Your task to perform on an android device: Open calendar and show me the third week of next month Image 0: 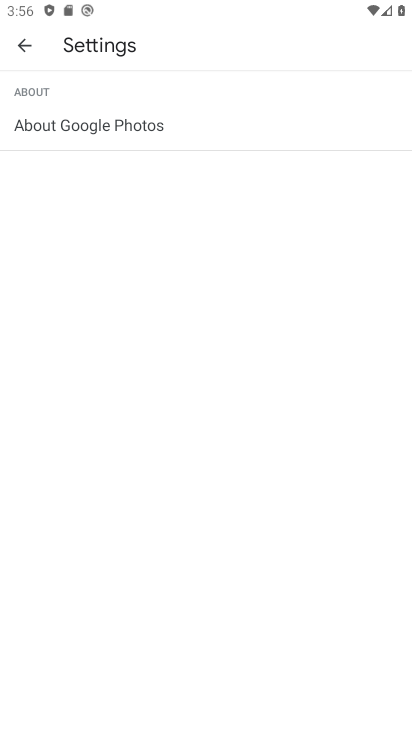
Step 0: press back button
Your task to perform on an android device: Open calendar and show me the third week of next month Image 1: 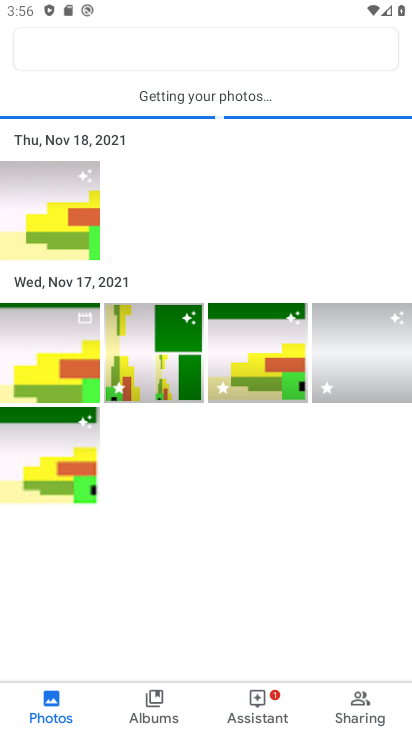
Step 1: click (28, 34)
Your task to perform on an android device: Open calendar and show me the third week of next month Image 2: 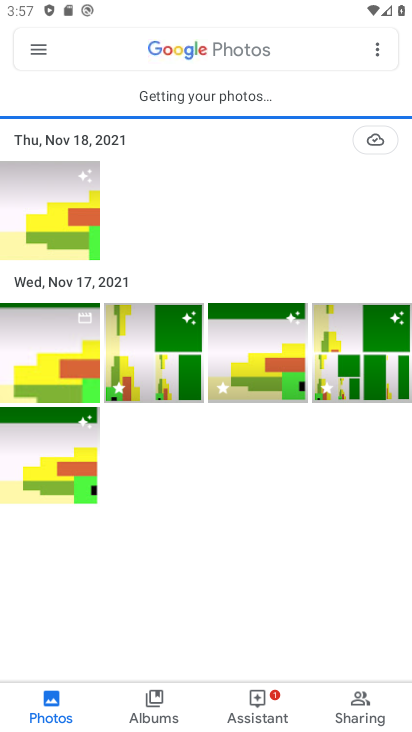
Step 2: press back button
Your task to perform on an android device: Open calendar and show me the third week of next month Image 3: 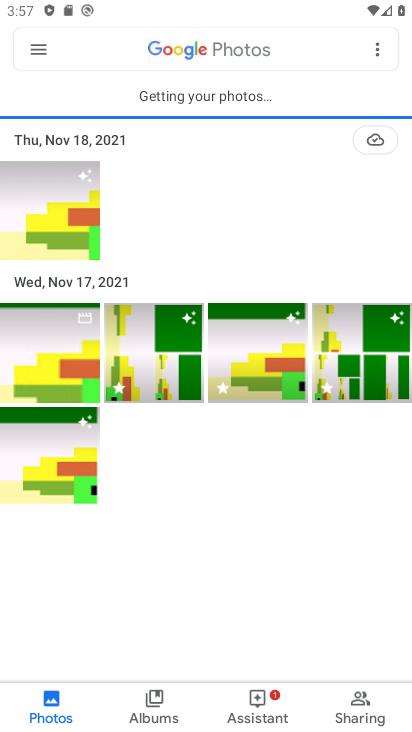
Step 3: press back button
Your task to perform on an android device: Open calendar and show me the third week of next month Image 4: 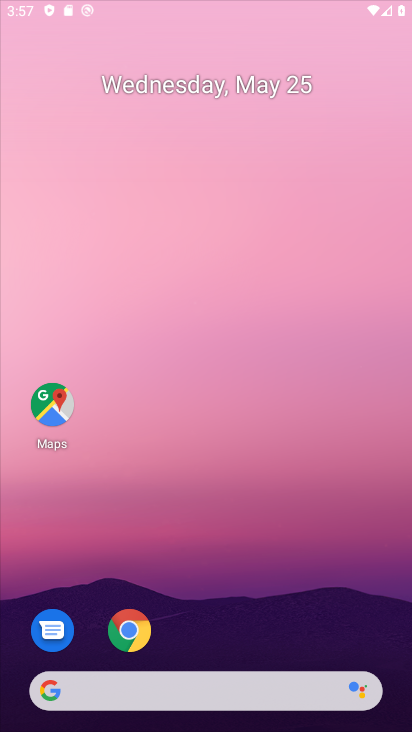
Step 4: press back button
Your task to perform on an android device: Open calendar and show me the third week of next month Image 5: 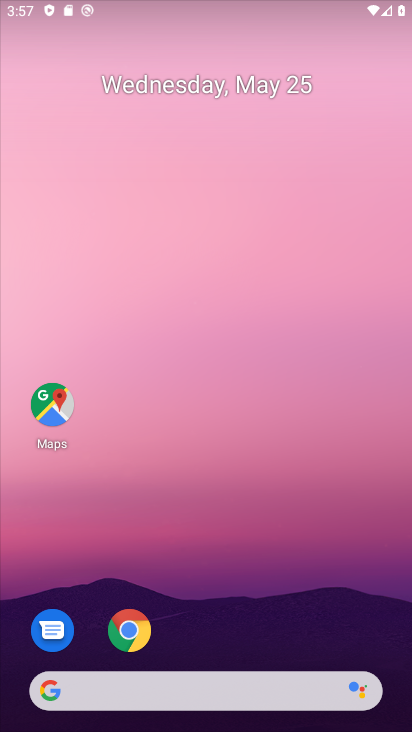
Step 5: press back button
Your task to perform on an android device: Open calendar and show me the third week of next month Image 6: 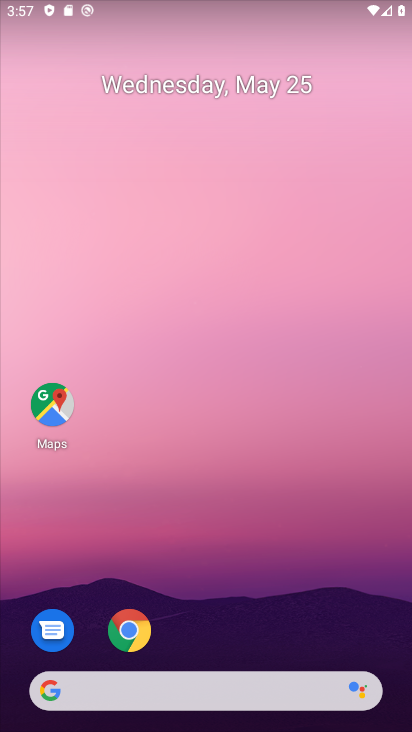
Step 6: drag from (158, 542) to (113, 146)
Your task to perform on an android device: Open calendar and show me the third week of next month Image 7: 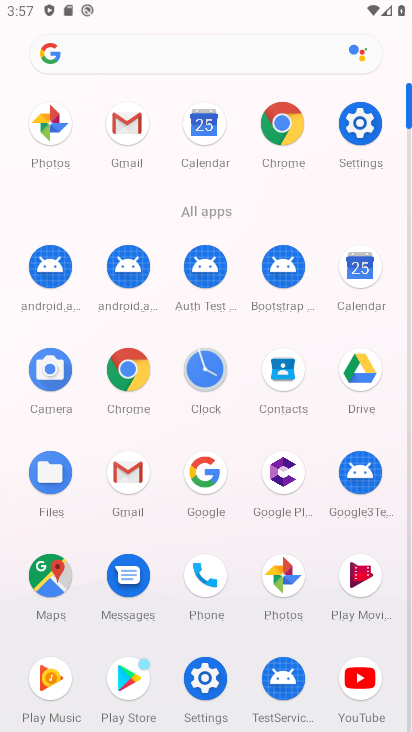
Step 7: click (363, 262)
Your task to perform on an android device: Open calendar and show me the third week of next month Image 8: 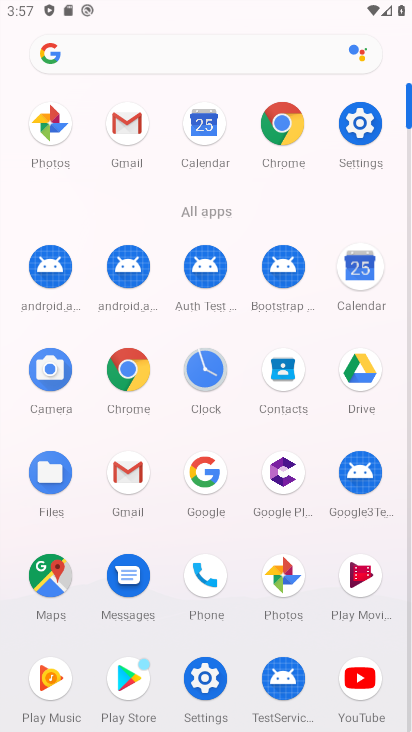
Step 8: click (364, 262)
Your task to perform on an android device: Open calendar and show me the third week of next month Image 9: 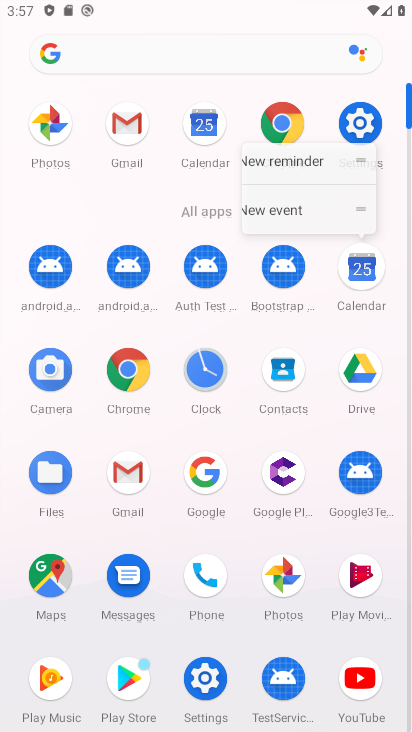
Step 9: click (364, 262)
Your task to perform on an android device: Open calendar and show me the third week of next month Image 10: 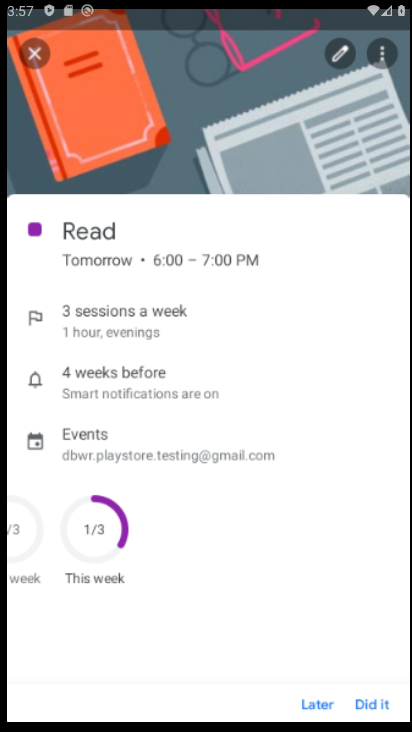
Step 10: click (367, 275)
Your task to perform on an android device: Open calendar and show me the third week of next month Image 11: 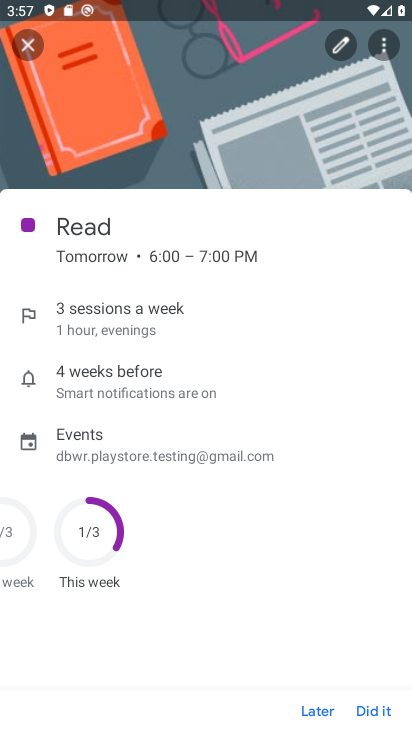
Step 11: click (32, 38)
Your task to perform on an android device: Open calendar and show me the third week of next month Image 12: 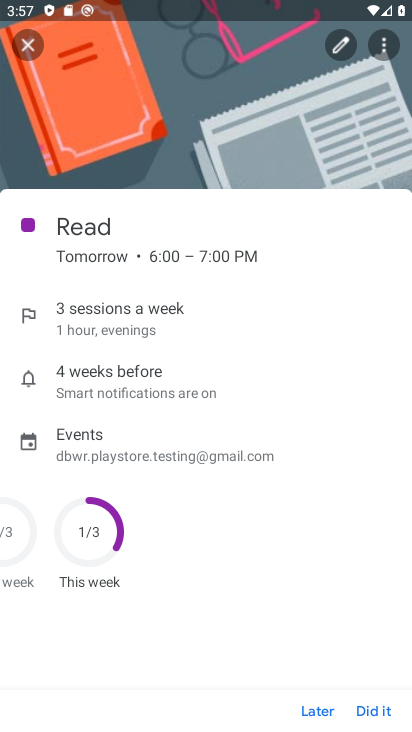
Step 12: click (32, 40)
Your task to perform on an android device: Open calendar and show me the third week of next month Image 13: 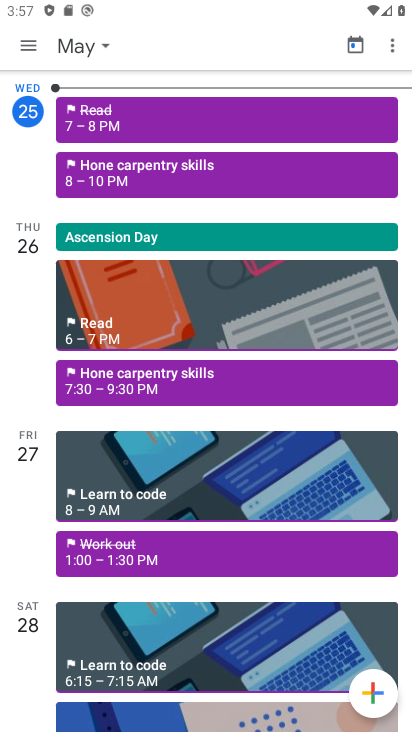
Step 13: click (37, 44)
Your task to perform on an android device: Open calendar and show me the third week of next month Image 14: 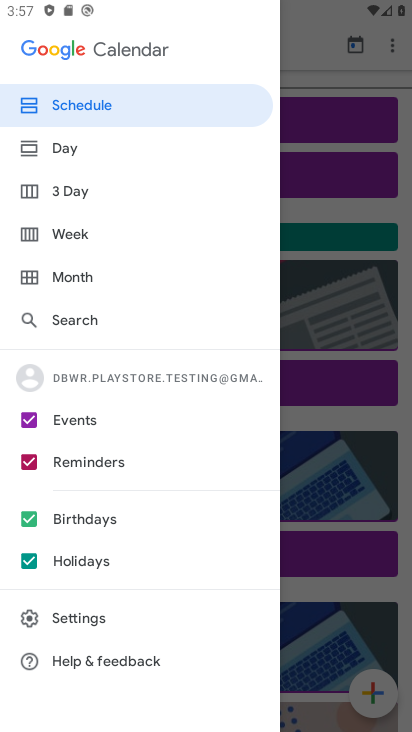
Step 14: drag from (108, 44) to (348, 141)
Your task to perform on an android device: Open calendar and show me the third week of next month Image 15: 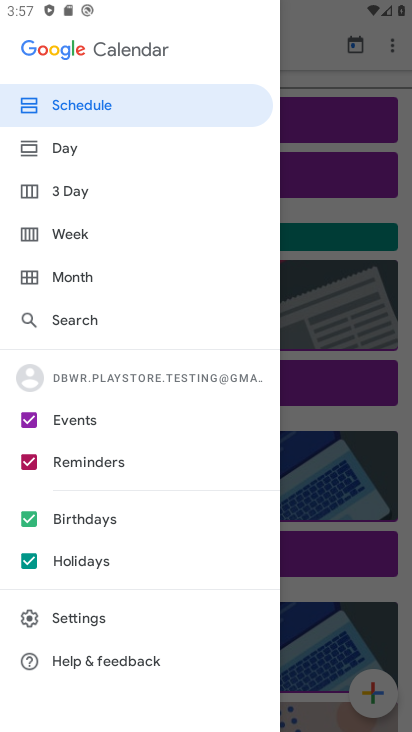
Step 15: click (322, 123)
Your task to perform on an android device: Open calendar and show me the third week of next month Image 16: 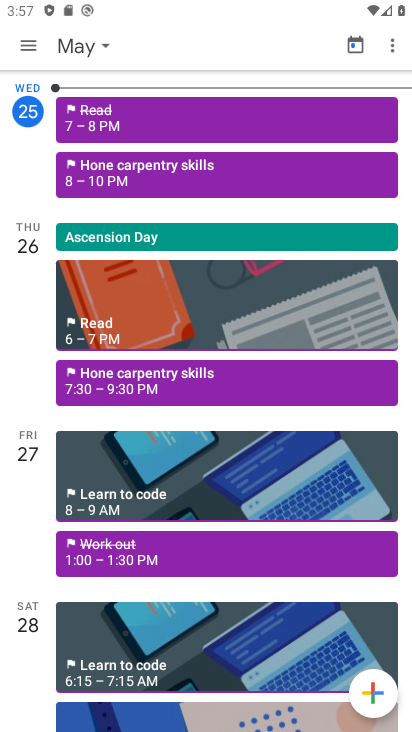
Step 16: click (309, 307)
Your task to perform on an android device: Open calendar and show me the third week of next month Image 17: 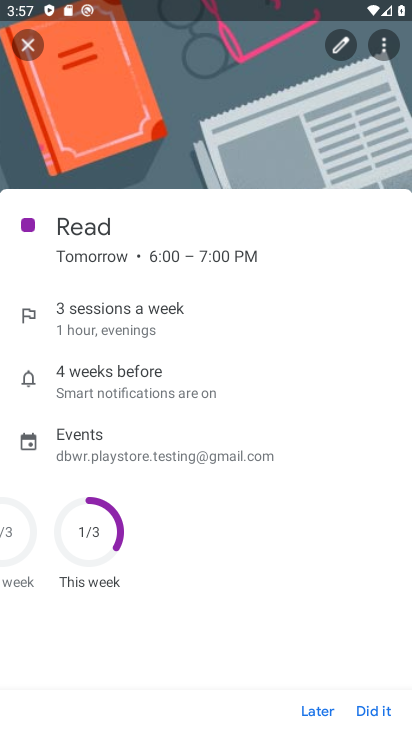
Step 17: click (25, 43)
Your task to perform on an android device: Open calendar and show me the third week of next month Image 18: 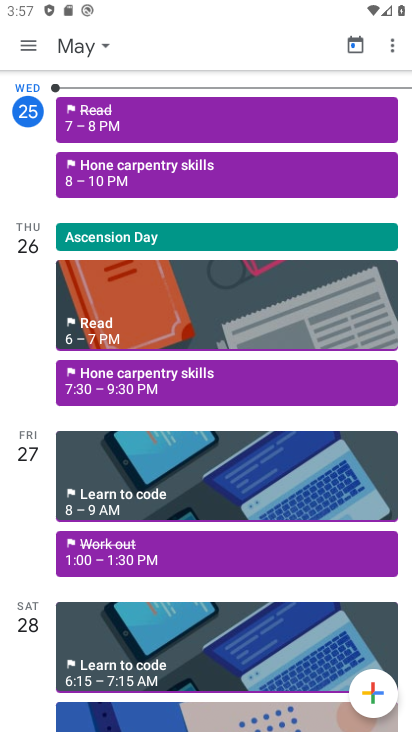
Step 18: click (108, 34)
Your task to perform on an android device: Open calendar and show me the third week of next month Image 19: 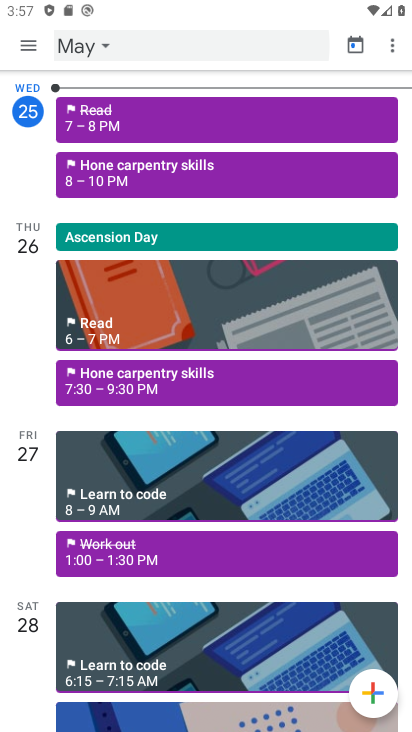
Step 19: click (101, 42)
Your task to perform on an android device: Open calendar and show me the third week of next month Image 20: 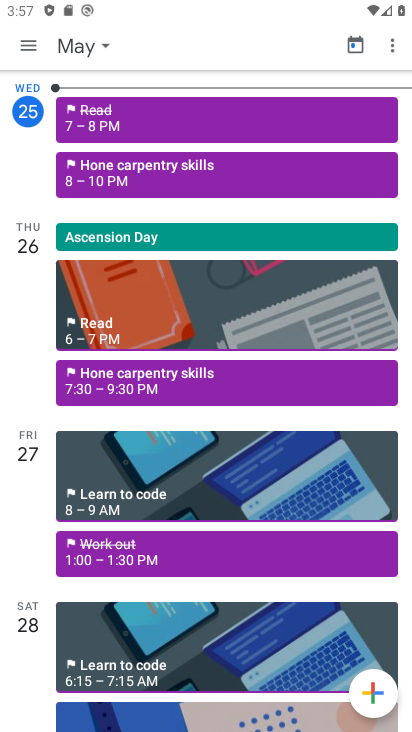
Step 20: click (99, 47)
Your task to perform on an android device: Open calendar and show me the third week of next month Image 21: 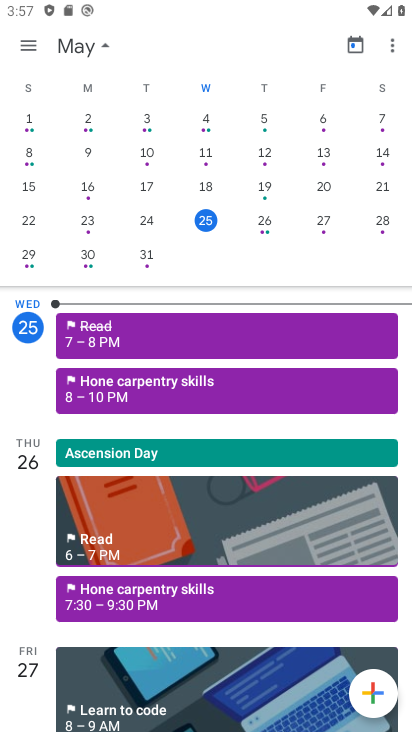
Step 21: drag from (266, 187) to (9, 200)
Your task to perform on an android device: Open calendar and show me the third week of next month Image 22: 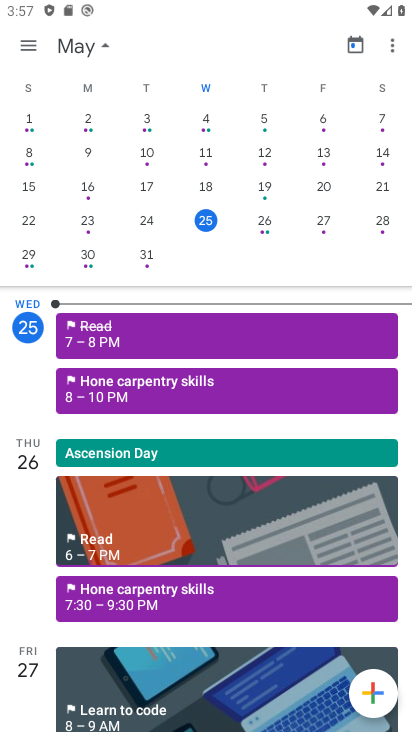
Step 22: drag from (272, 179) to (14, 238)
Your task to perform on an android device: Open calendar and show me the third week of next month Image 23: 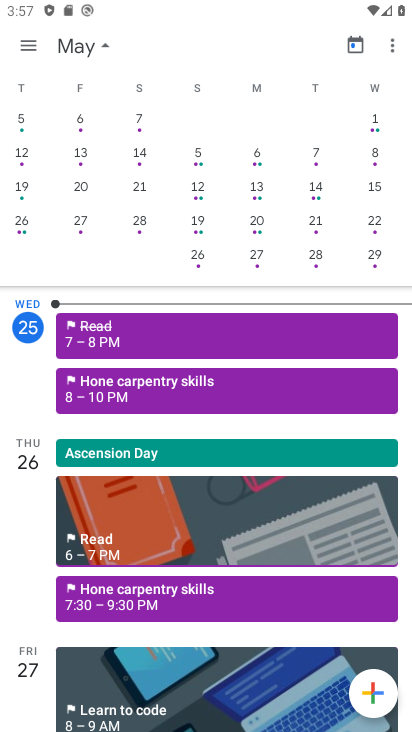
Step 23: drag from (240, 158) to (6, 195)
Your task to perform on an android device: Open calendar and show me the third week of next month Image 24: 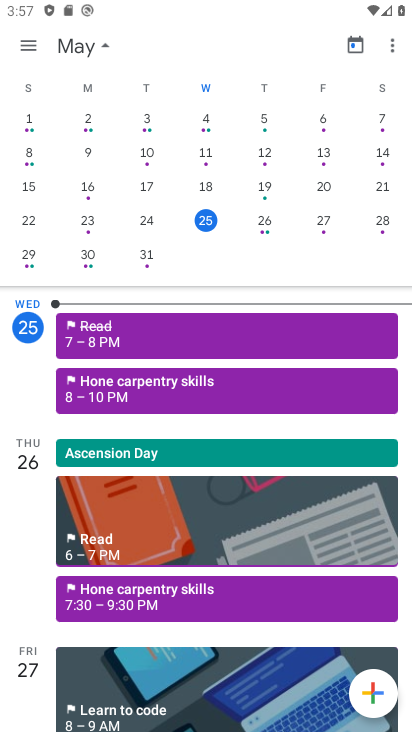
Step 24: drag from (294, 164) to (25, 106)
Your task to perform on an android device: Open calendar and show me the third week of next month Image 25: 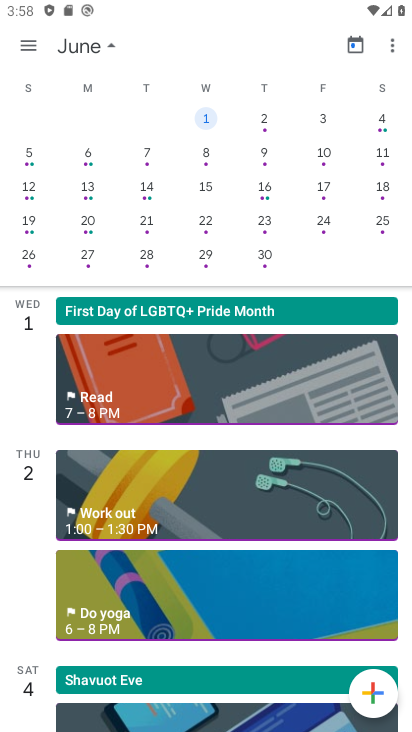
Step 25: click (204, 182)
Your task to perform on an android device: Open calendar and show me the third week of next month Image 26: 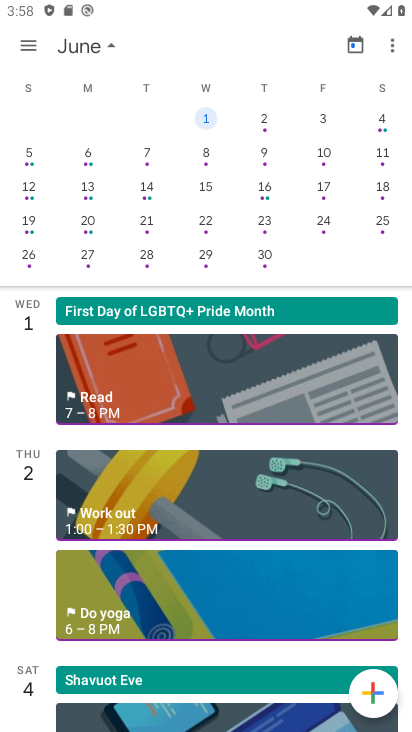
Step 26: click (196, 179)
Your task to perform on an android device: Open calendar and show me the third week of next month Image 27: 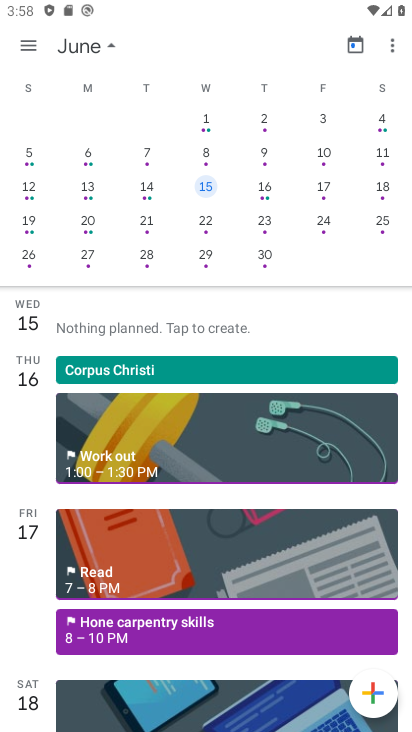
Step 27: click (209, 187)
Your task to perform on an android device: Open calendar and show me the third week of next month Image 28: 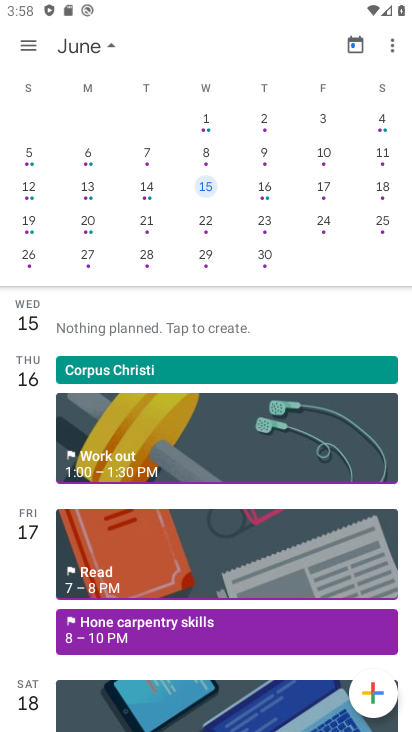
Step 28: task complete